Your task to perform on an android device: Clear the shopping cart on walmart. Search for "razer blade" on walmart, select the first entry, and add it to the cart. Image 0: 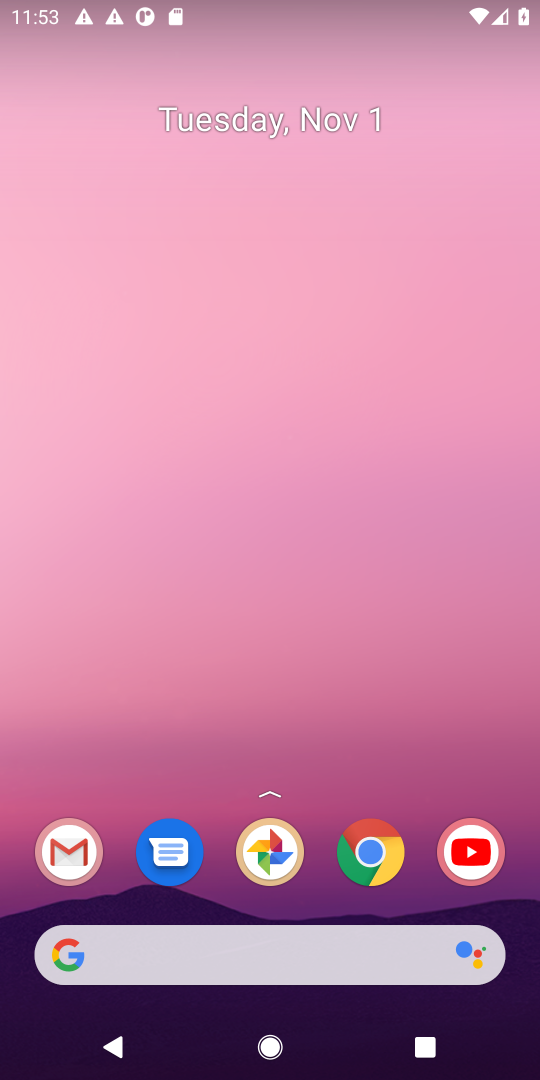
Step 0: press home button
Your task to perform on an android device: Clear the shopping cart on walmart. Search for "razer blade" on walmart, select the first entry, and add it to the cart. Image 1: 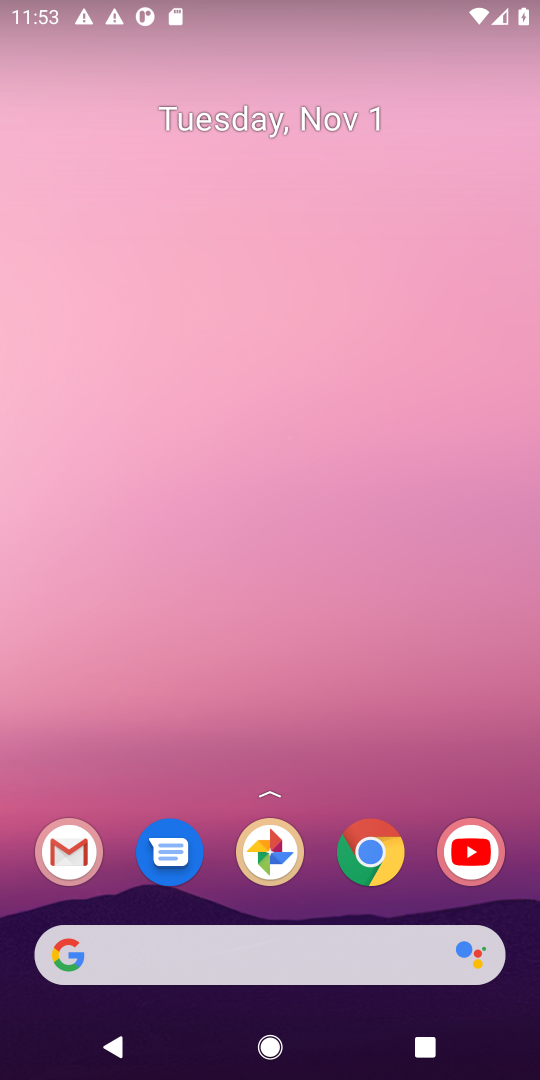
Step 1: click (71, 955)
Your task to perform on an android device: Clear the shopping cart on walmart. Search for "razer blade" on walmart, select the first entry, and add it to the cart. Image 2: 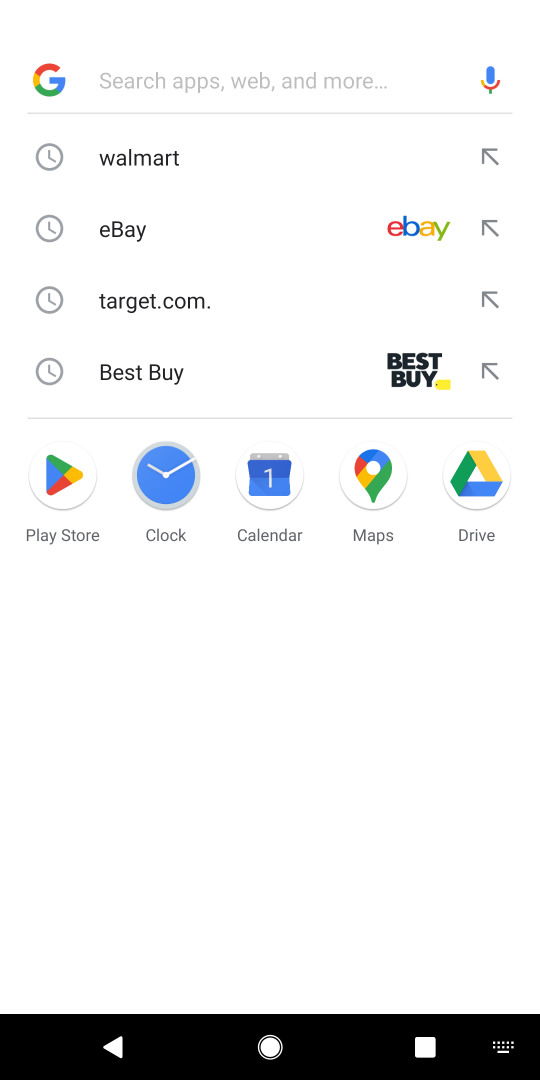
Step 2: click (152, 166)
Your task to perform on an android device: Clear the shopping cart on walmart. Search for "razer blade" on walmart, select the first entry, and add it to the cart. Image 3: 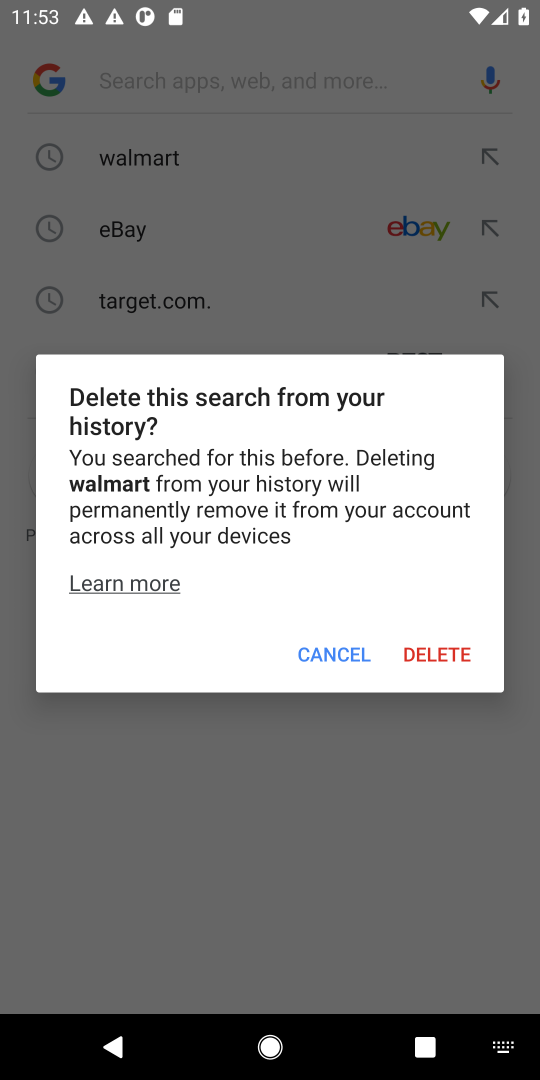
Step 3: click (333, 646)
Your task to perform on an android device: Clear the shopping cart on walmart. Search for "razer blade" on walmart, select the first entry, and add it to the cart. Image 4: 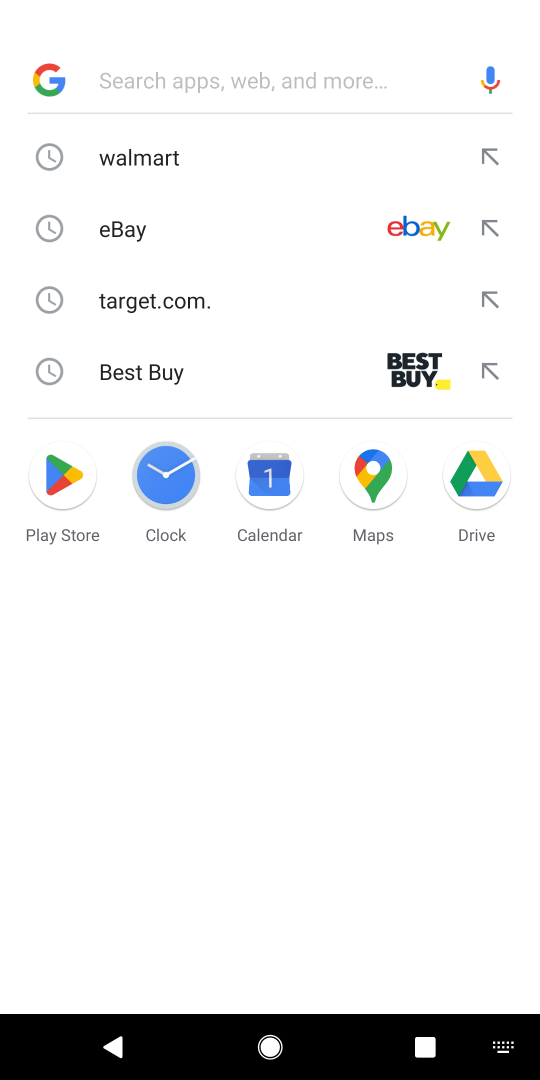
Step 4: click (137, 161)
Your task to perform on an android device: Clear the shopping cart on walmart. Search for "razer blade" on walmart, select the first entry, and add it to the cart. Image 5: 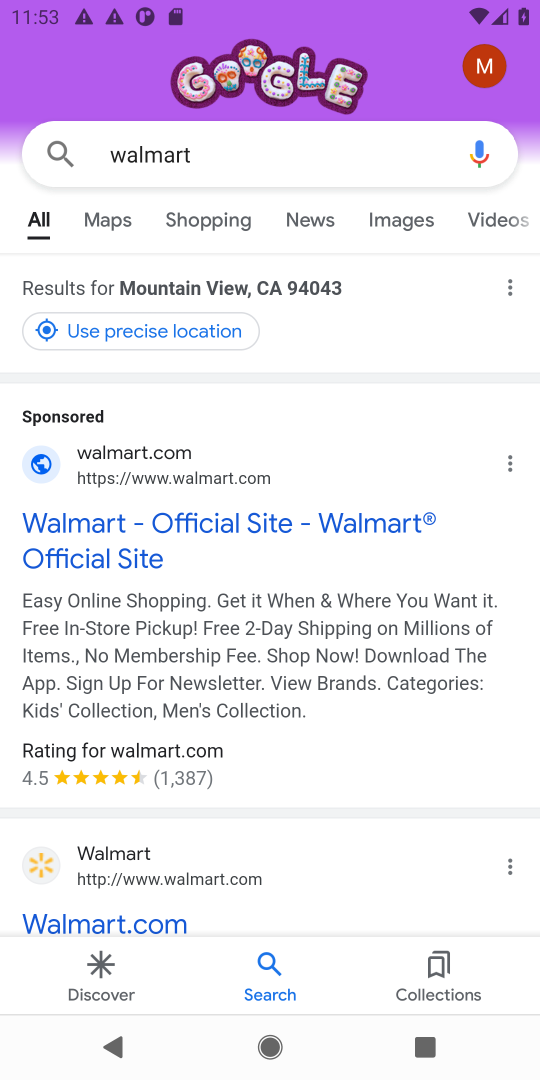
Step 5: click (154, 921)
Your task to perform on an android device: Clear the shopping cart on walmart. Search for "razer blade" on walmart, select the first entry, and add it to the cart. Image 6: 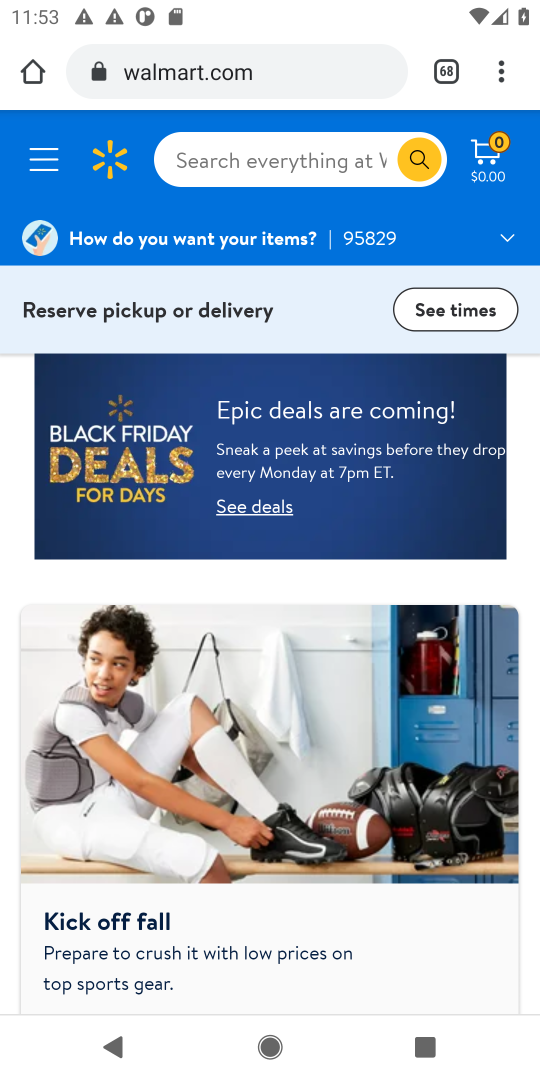
Step 6: click (285, 145)
Your task to perform on an android device: Clear the shopping cart on walmart. Search for "razer blade" on walmart, select the first entry, and add it to the cart. Image 7: 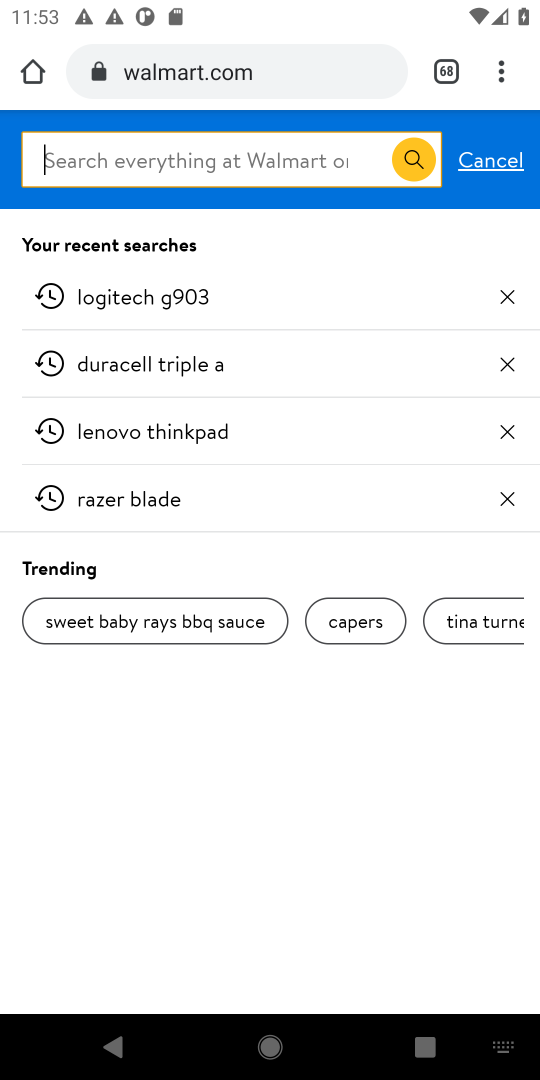
Step 7: type "razer blade"
Your task to perform on an android device: Clear the shopping cart on walmart. Search for "razer blade" on walmart, select the first entry, and add it to the cart. Image 8: 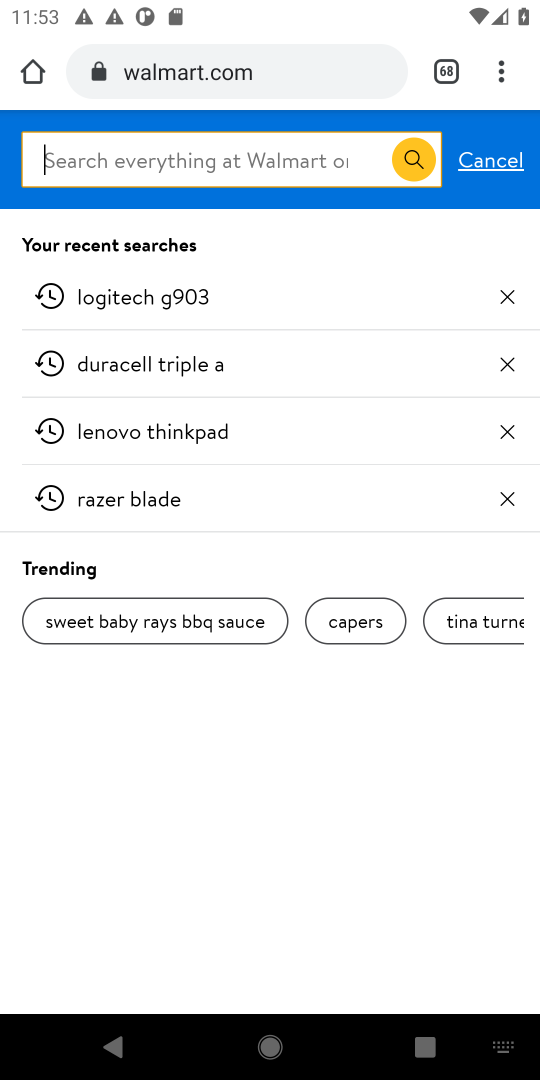
Step 8: click (151, 166)
Your task to perform on an android device: Clear the shopping cart on walmart. Search for "razer blade" on walmart, select the first entry, and add it to the cart. Image 9: 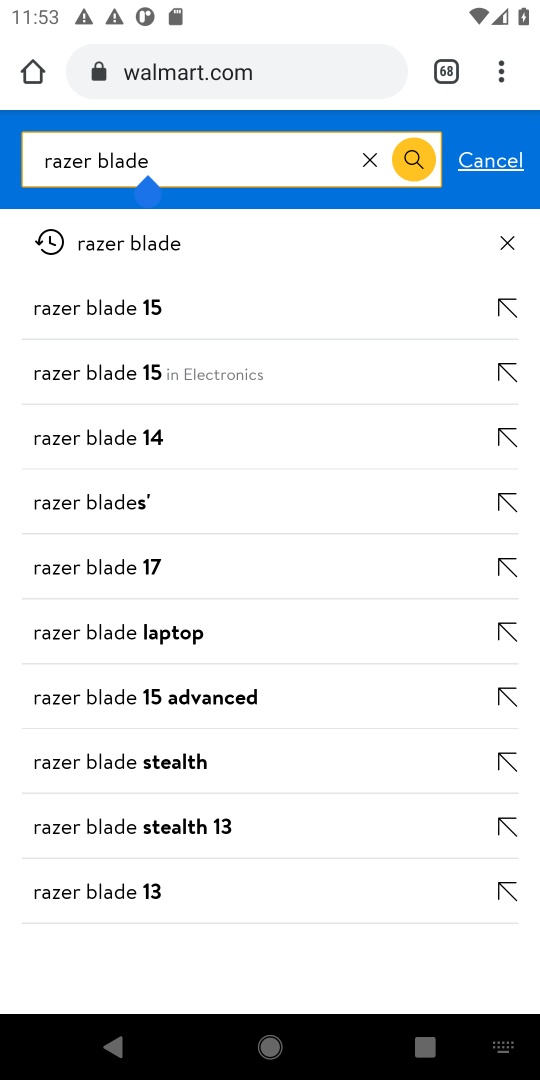
Step 9: press enter
Your task to perform on an android device: Clear the shopping cart on walmart. Search for "razer blade" on walmart, select the first entry, and add it to the cart. Image 10: 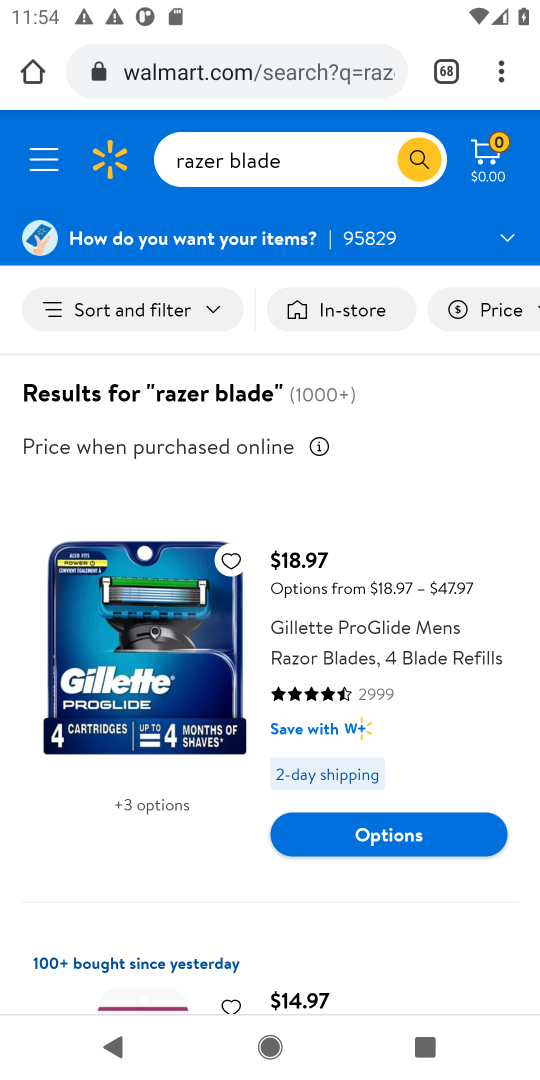
Step 10: click (123, 664)
Your task to perform on an android device: Clear the shopping cart on walmart. Search for "razer blade" on walmart, select the first entry, and add it to the cart. Image 11: 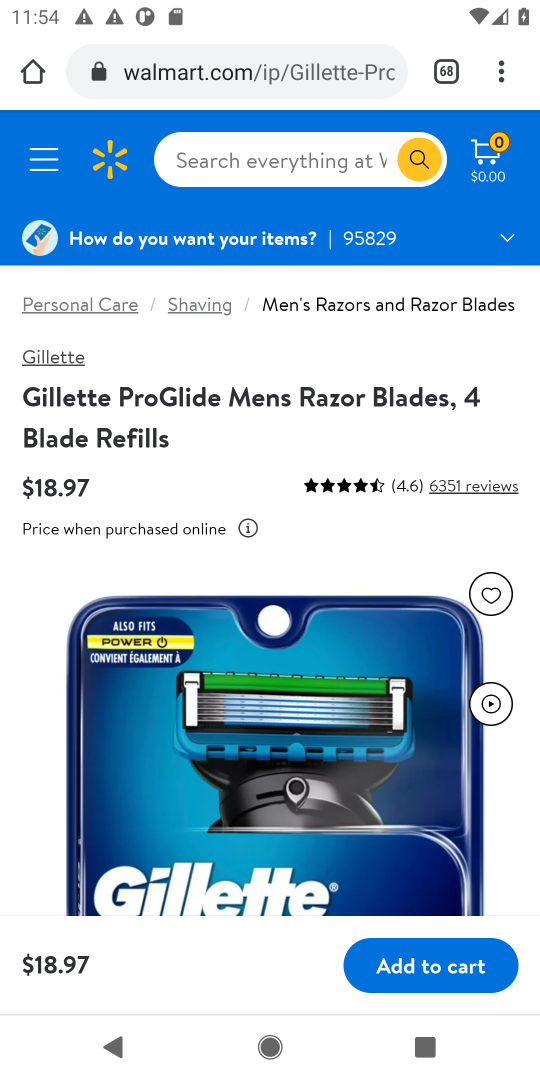
Step 11: click (422, 979)
Your task to perform on an android device: Clear the shopping cart on walmart. Search for "razer blade" on walmart, select the first entry, and add it to the cart. Image 12: 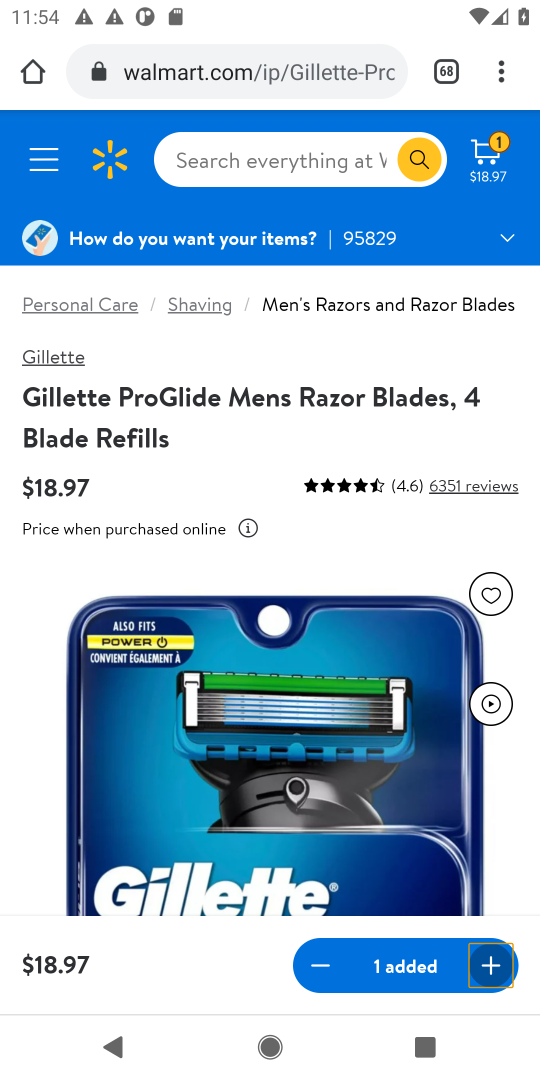
Step 12: task complete